Your task to perform on an android device: Open Google Chrome Image 0: 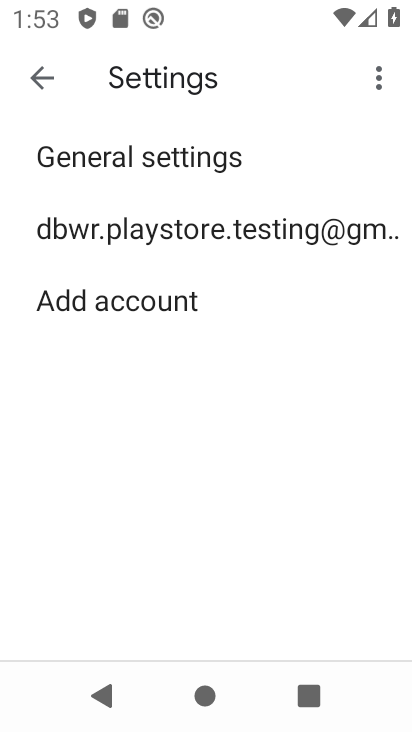
Step 0: press home button
Your task to perform on an android device: Open Google Chrome Image 1: 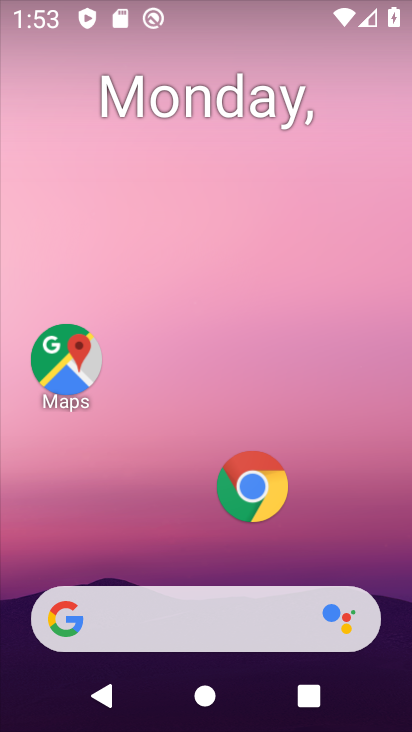
Step 1: click (258, 495)
Your task to perform on an android device: Open Google Chrome Image 2: 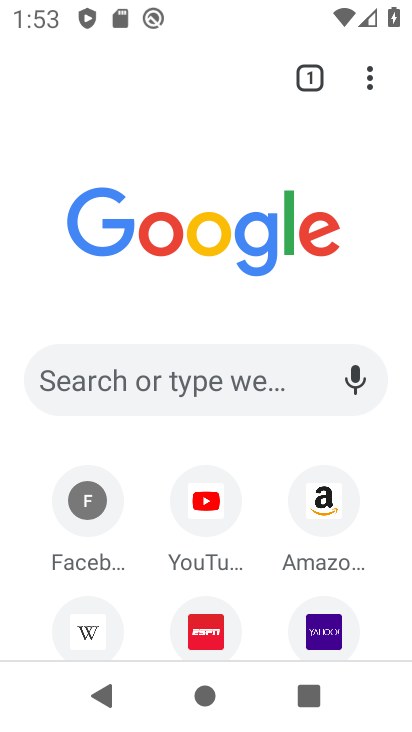
Step 2: task complete